Your task to perform on an android device: Open Google Chrome Image 0: 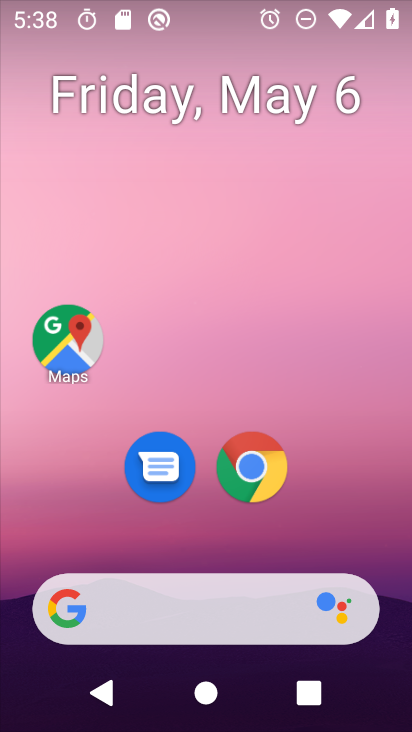
Step 0: click (271, 477)
Your task to perform on an android device: Open Google Chrome Image 1: 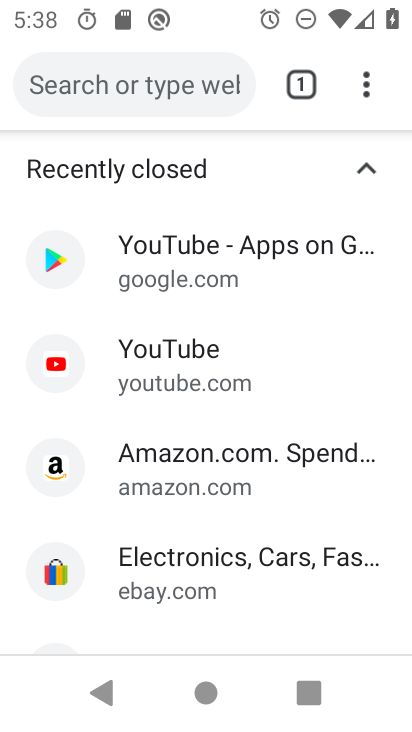
Step 1: task complete